Your task to perform on an android device: When is my next meeting? Image 0: 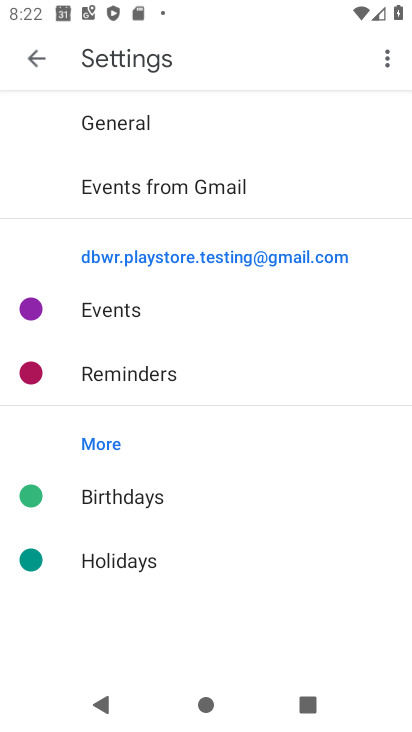
Step 0: press home button
Your task to perform on an android device: When is my next meeting? Image 1: 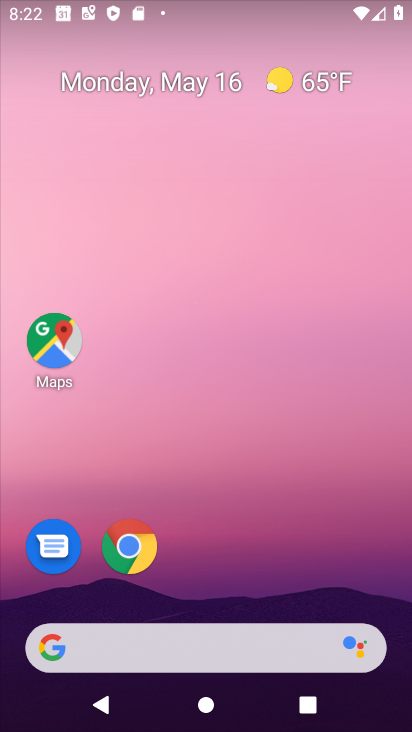
Step 1: drag from (219, 575) to (294, 51)
Your task to perform on an android device: When is my next meeting? Image 2: 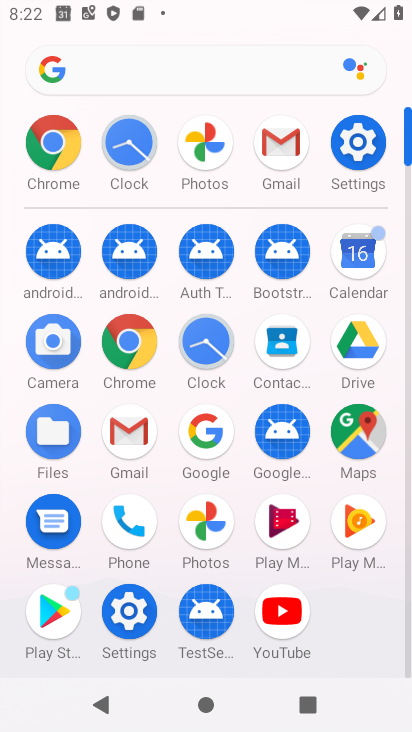
Step 2: click (359, 273)
Your task to perform on an android device: When is my next meeting? Image 3: 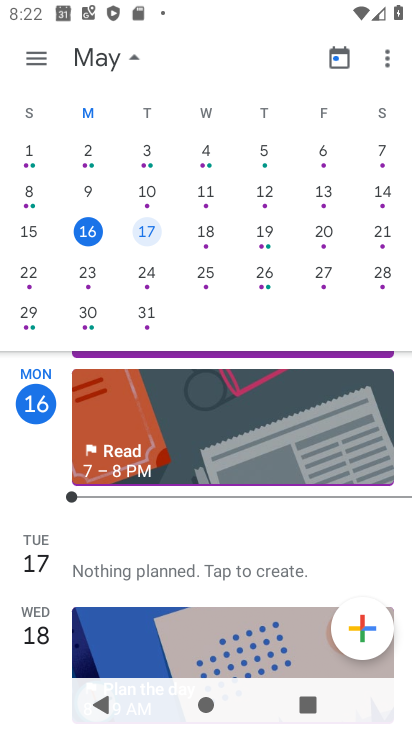
Step 3: click (88, 65)
Your task to perform on an android device: When is my next meeting? Image 4: 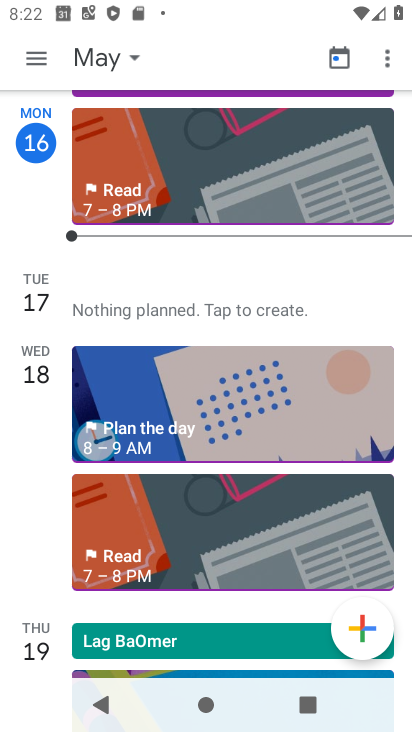
Step 4: task complete